Your task to perform on an android device: turn on the 12-hour format for clock Image 0: 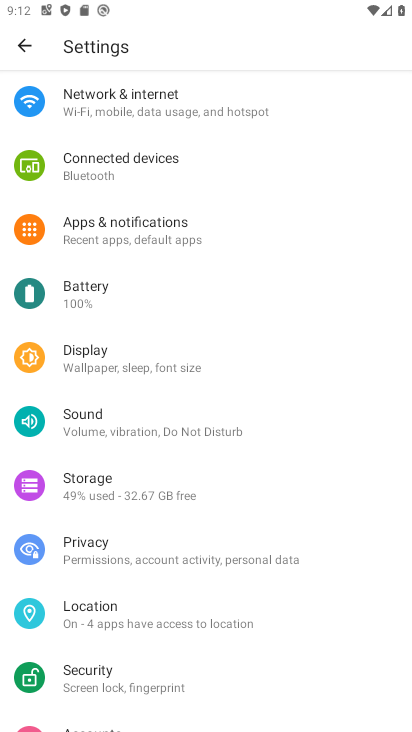
Step 0: press home button
Your task to perform on an android device: turn on the 12-hour format for clock Image 1: 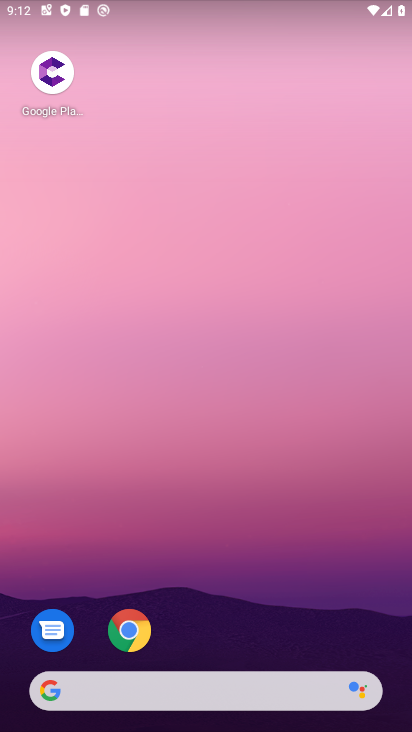
Step 1: drag from (241, 630) to (162, 36)
Your task to perform on an android device: turn on the 12-hour format for clock Image 2: 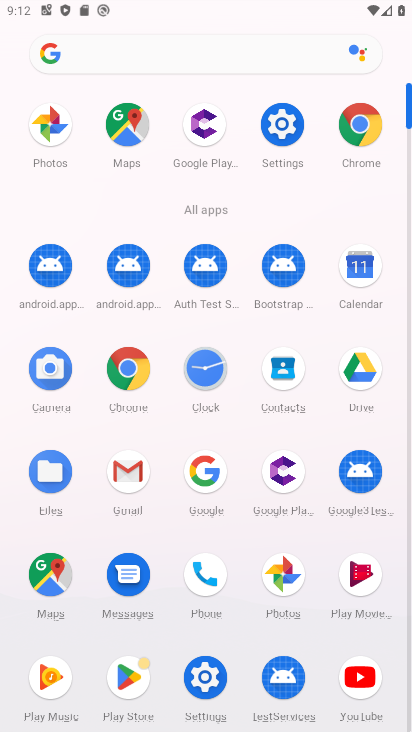
Step 2: click (192, 355)
Your task to perform on an android device: turn on the 12-hour format for clock Image 3: 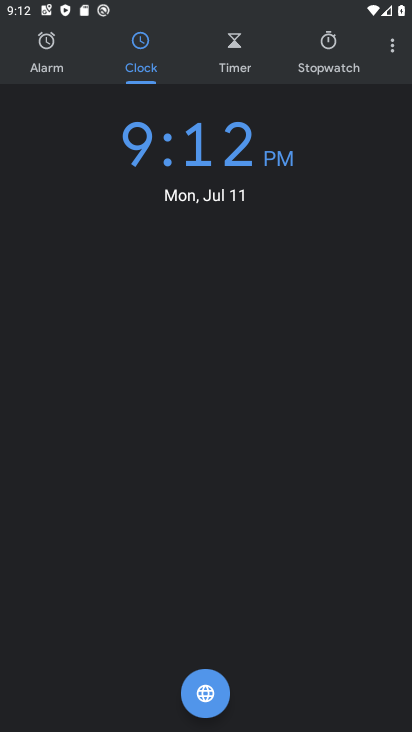
Step 3: click (398, 42)
Your task to perform on an android device: turn on the 12-hour format for clock Image 4: 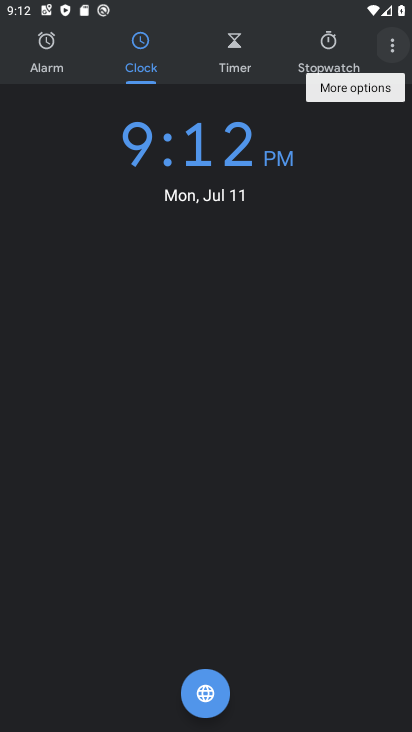
Step 4: click (398, 42)
Your task to perform on an android device: turn on the 12-hour format for clock Image 5: 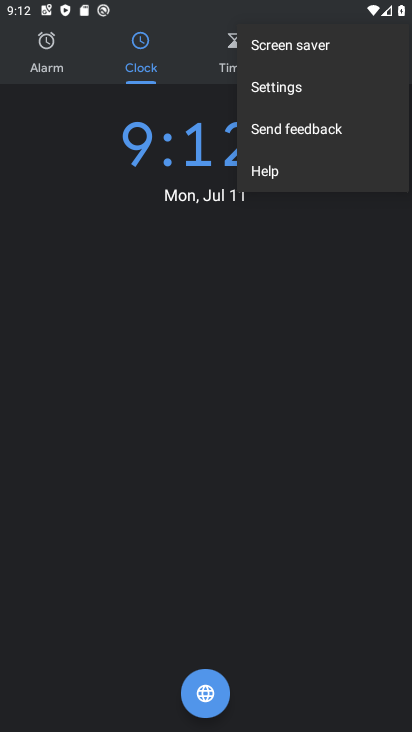
Step 5: click (286, 88)
Your task to perform on an android device: turn on the 12-hour format for clock Image 6: 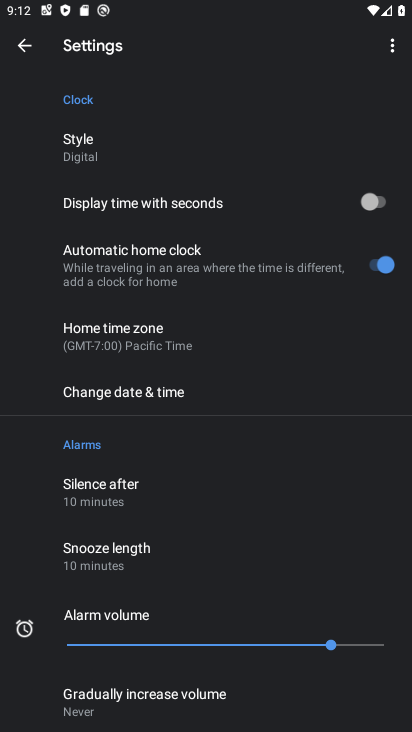
Step 6: click (72, 393)
Your task to perform on an android device: turn on the 12-hour format for clock Image 7: 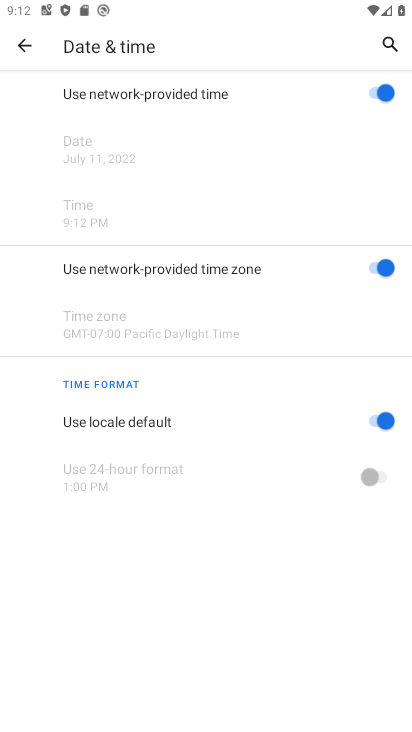
Step 7: task complete